Your task to perform on an android device: Where can I buy a nice beach bag? Image 0: 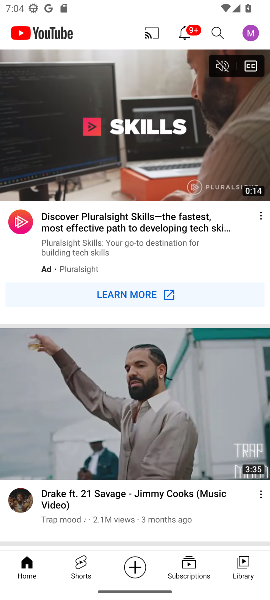
Step 0: press home button
Your task to perform on an android device: Where can I buy a nice beach bag? Image 1: 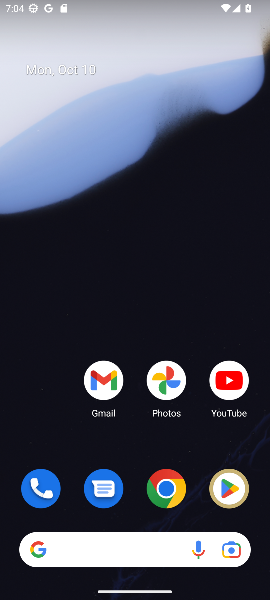
Step 1: drag from (142, 438) to (178, 62)
Your task to perform on an android device: Where can I buy a nice beach bag? Image 2: 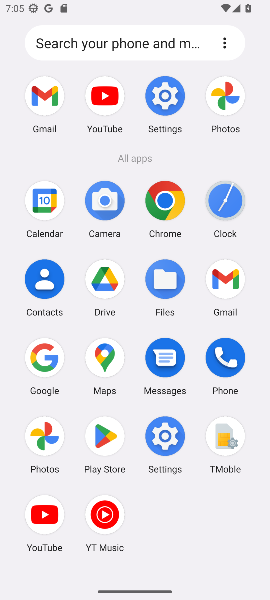
Step 2: click (165, 201)
Your task to perform on an android device: Where can I buy a nice beach bag? Image 3: 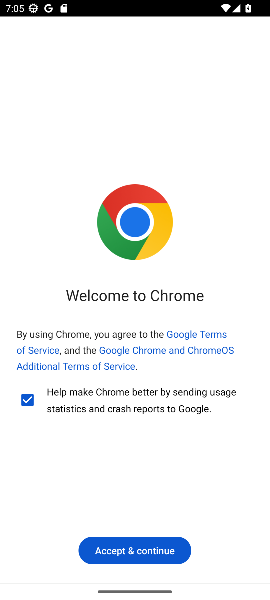
Step 3: click (124, 558)
Your task to perform on an android device: Where can I buy a nice beach bag? Image 4: 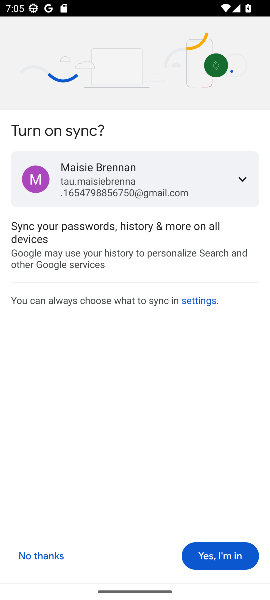
Step 4: click (202, 559)
Your task to perform on an android device: Where can I buy a nice beach bag? Image 5: 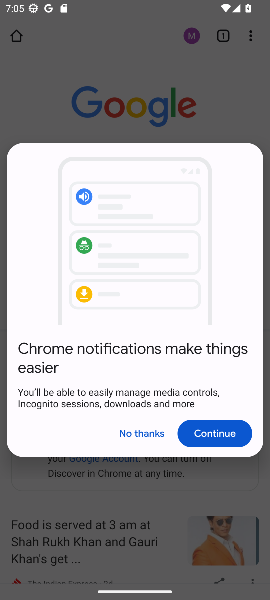
Step 5: click (208, 434)
Your task to perform on an android device: Where can I buy a nice beach bag? Image 6: 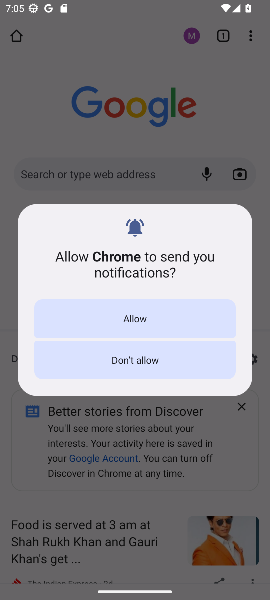
Step 6: click (179, 364)
Your task to perform on an android device: Where can I buy a nice beach bag? Image 7: 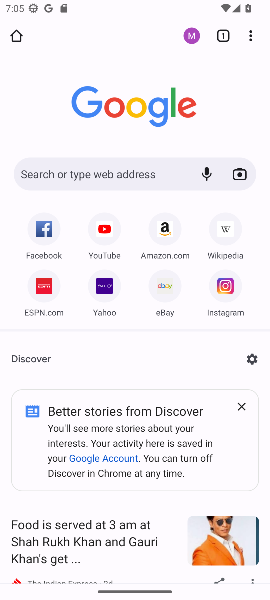
Step 7: click (139, 171)
Your task to perform on an android device: Where can I buy a nice beach bag? Image 8: 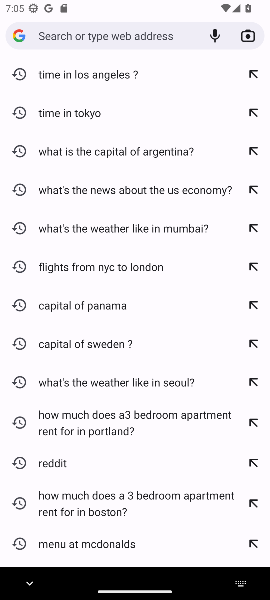
Step 8: type "Where can I buy  a nice beach bag?"
Your task to perform on an android device: Where can I buy a nice beach bag? Image 9: 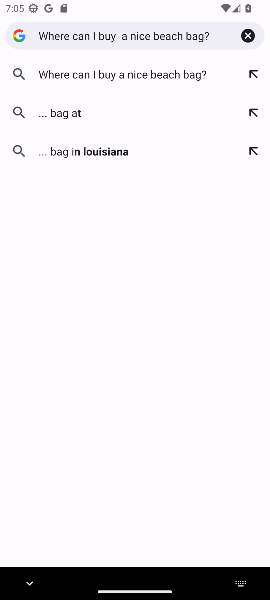
Step 9: press enter
Your task to perform on an android device: Where can I buy a nice beach bag? Image 10: 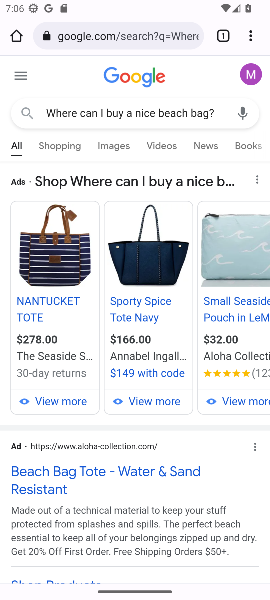
Step 10: task complete